Your task to perform on an android device: Open Google Maps Image 0: 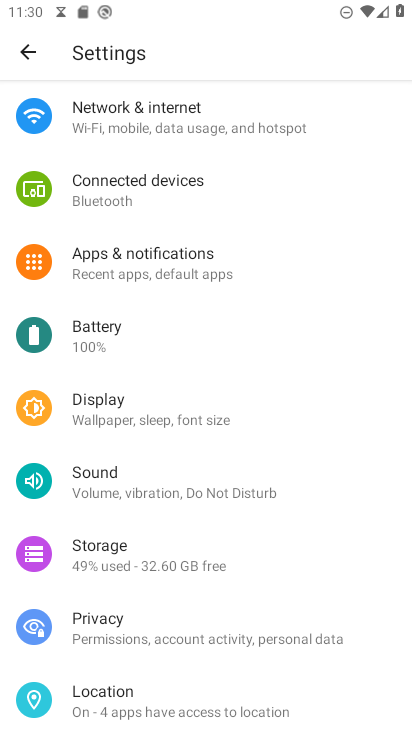
Step 0: press home button
Your task to perform on an android device: Open Google Maps Image 1: 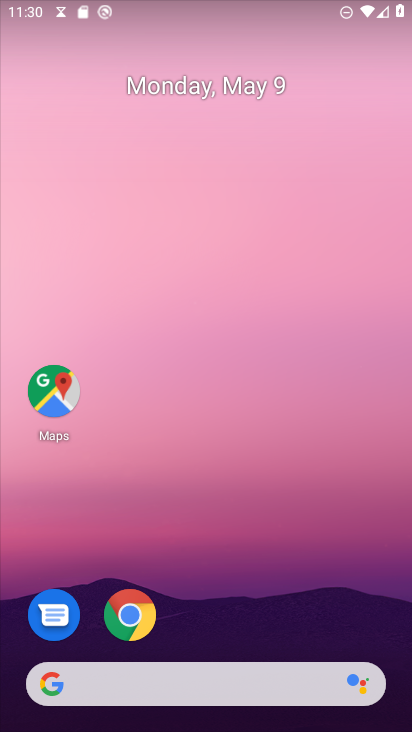
Step 1: drag from (202, 725) to (184, 292)
Your task to perform on an android device: Open Google Maps Image 2: 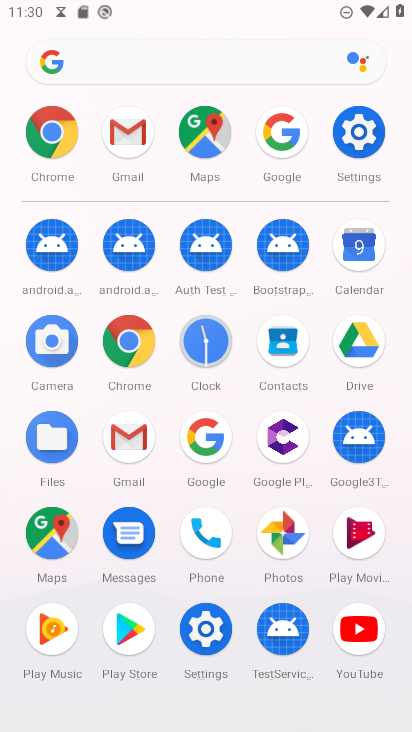
Step 2: click (59, 534)
Your task to perform on an android device: Open Google Maps Image 3: 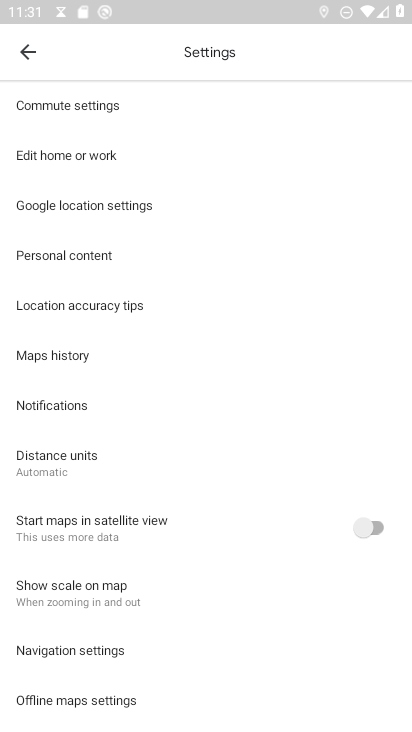
Step 3: click (25, 43)
Your task to perform on an android device: Open Google Maps Image 4: 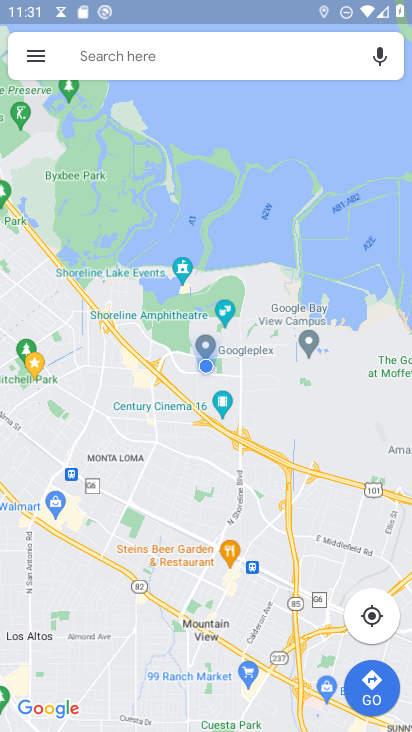
Step 4: task complete